Your task to perform on an android device: Go to location settings Image 0: 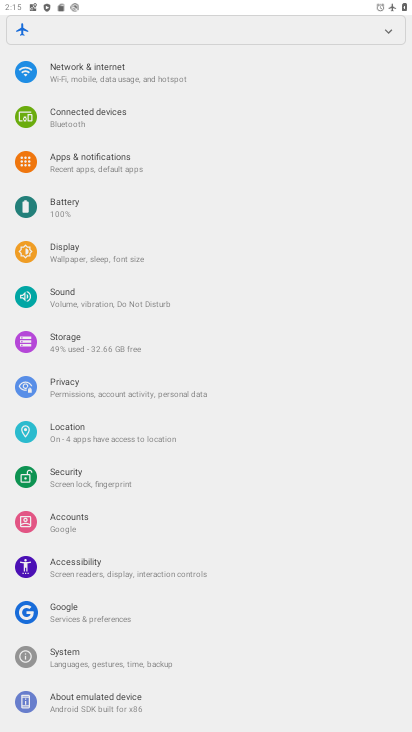
Step 0: click (63, 423)
Your task to perform on an android device: Go to location settings Image 1: 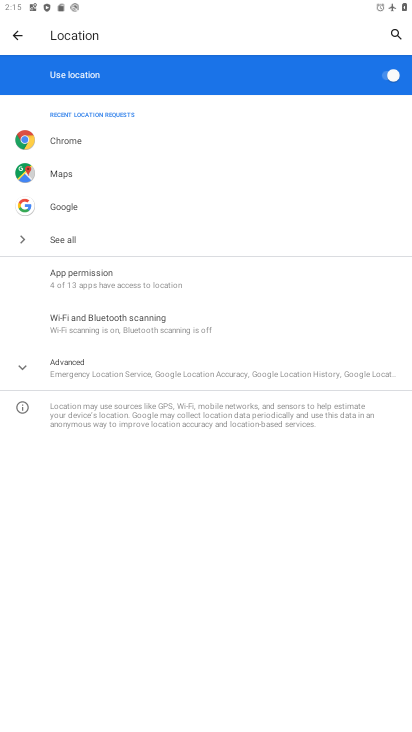
Step 1: click (90, 367)
Your task to perform on an android device: Go to location settings Image 2: 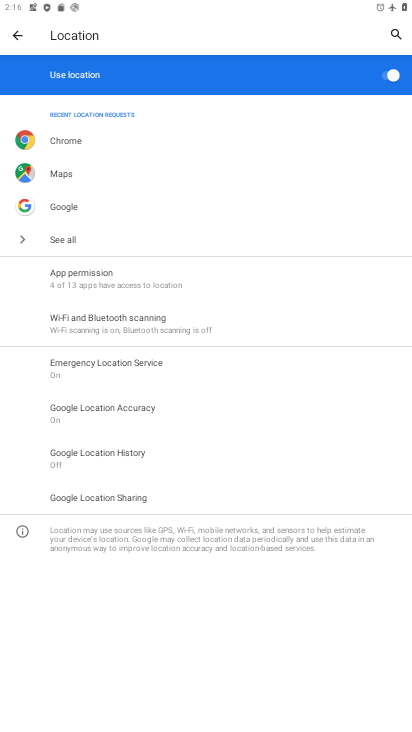
Step 2: task complete